Your task to perform on an android device: turn off location history Image 0: 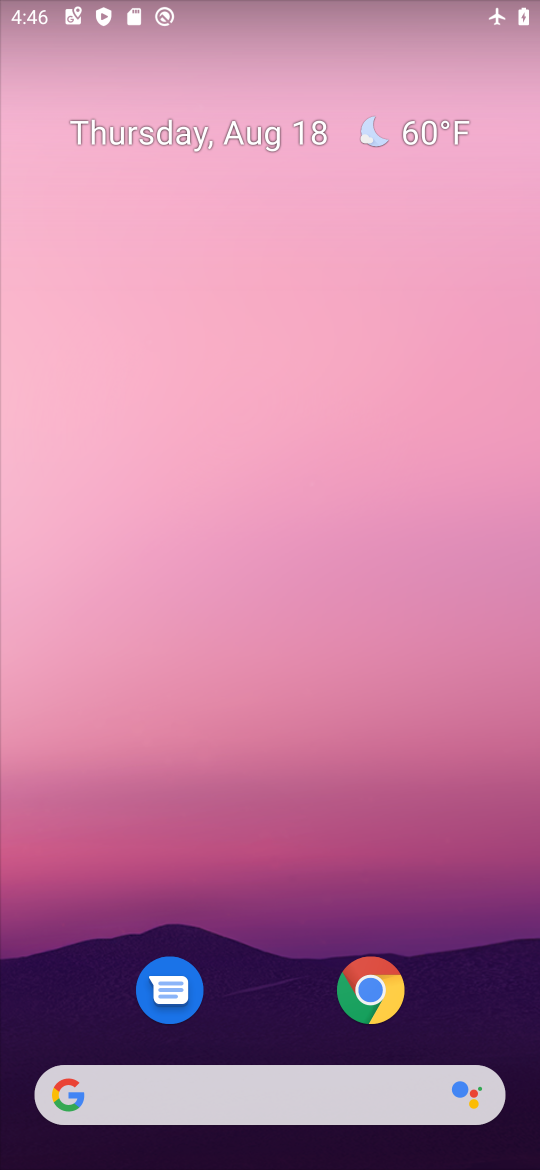
Step 0: drag from (250, 978) to (329, 147)
Your task to perform on an android device: turn off location history Image 1: 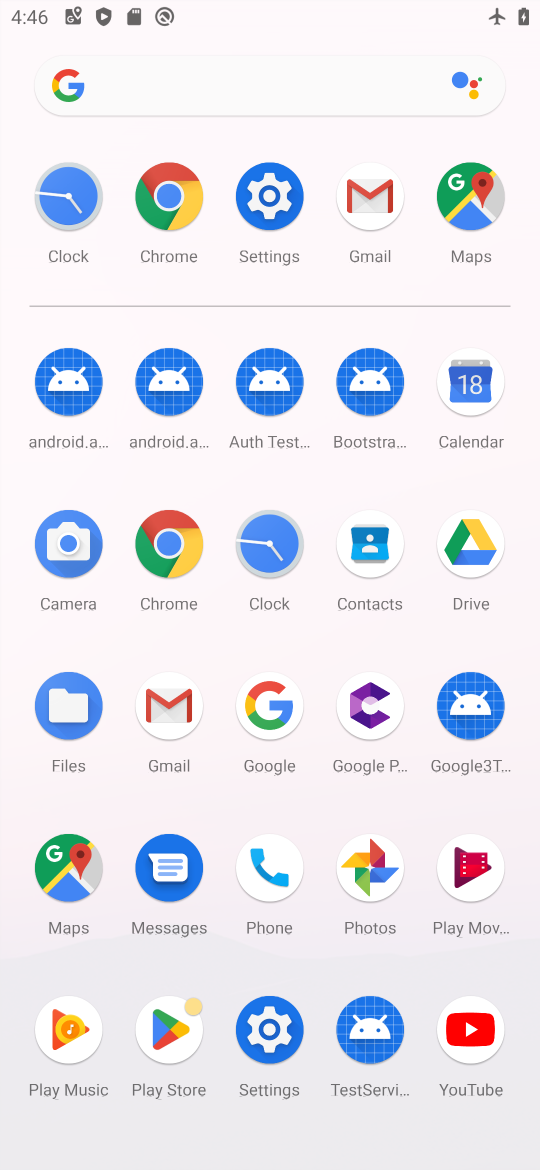
Step 1: click (277, 1019)
Your task to perform on an android device: turn off location history Image 2: 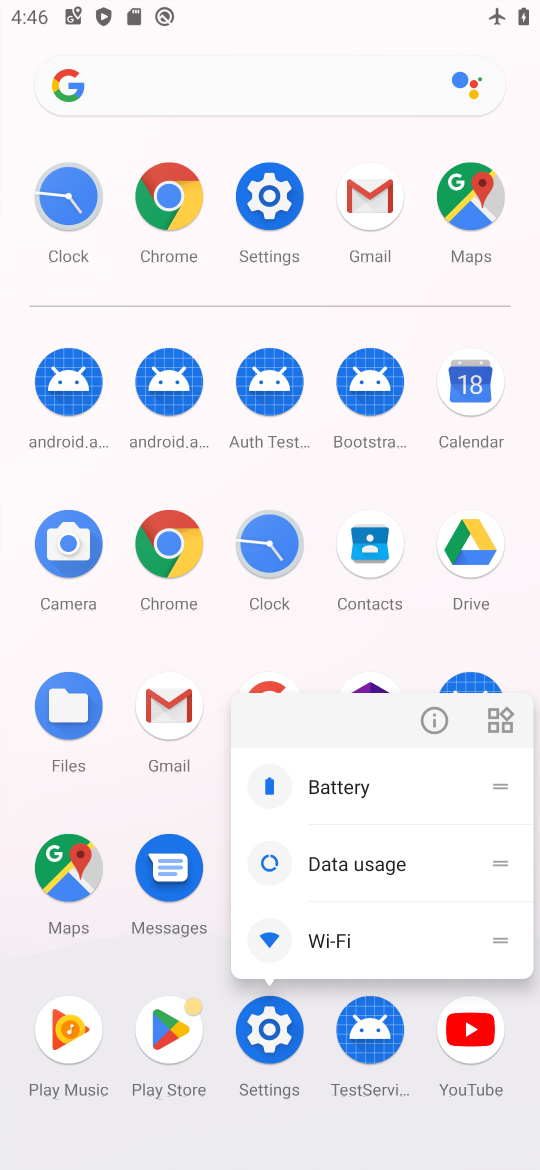
Step 2: click (283, 1035)
Your task to perform on an android device: turn off location history Image 3: 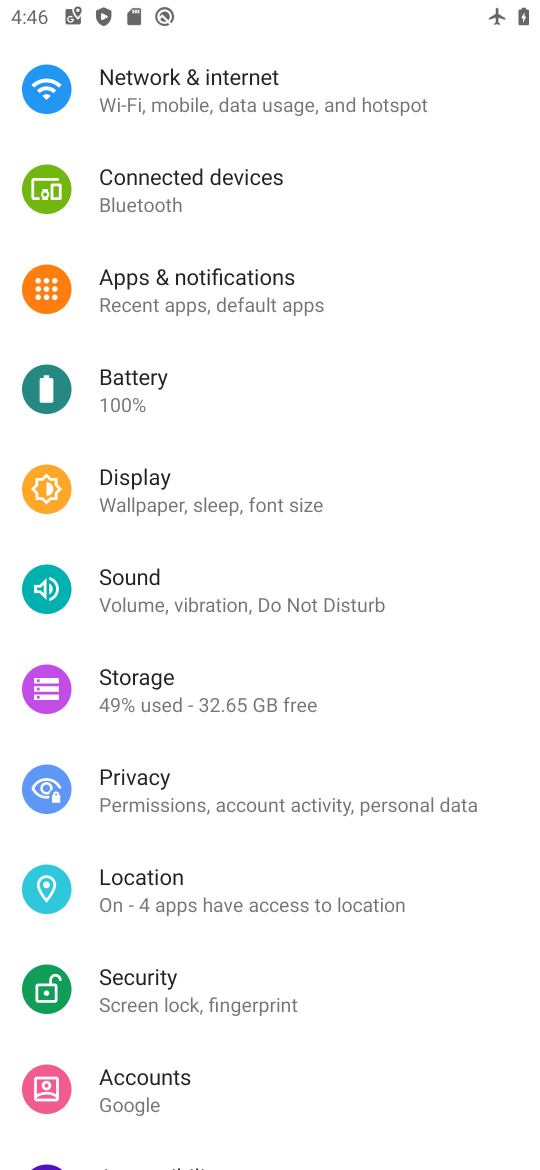
Step 3: click (209, 893)
Your task to perform on an android device: turn off location history Image 4: 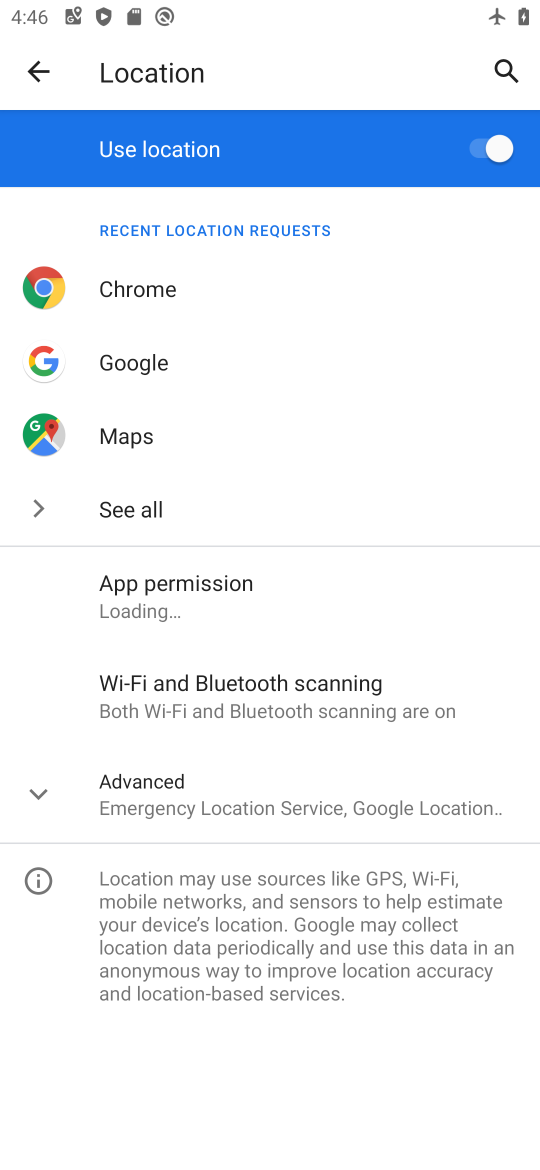
Step 4: click (229, 797)
Your task to perform on an android device: turn off location history Image 5: 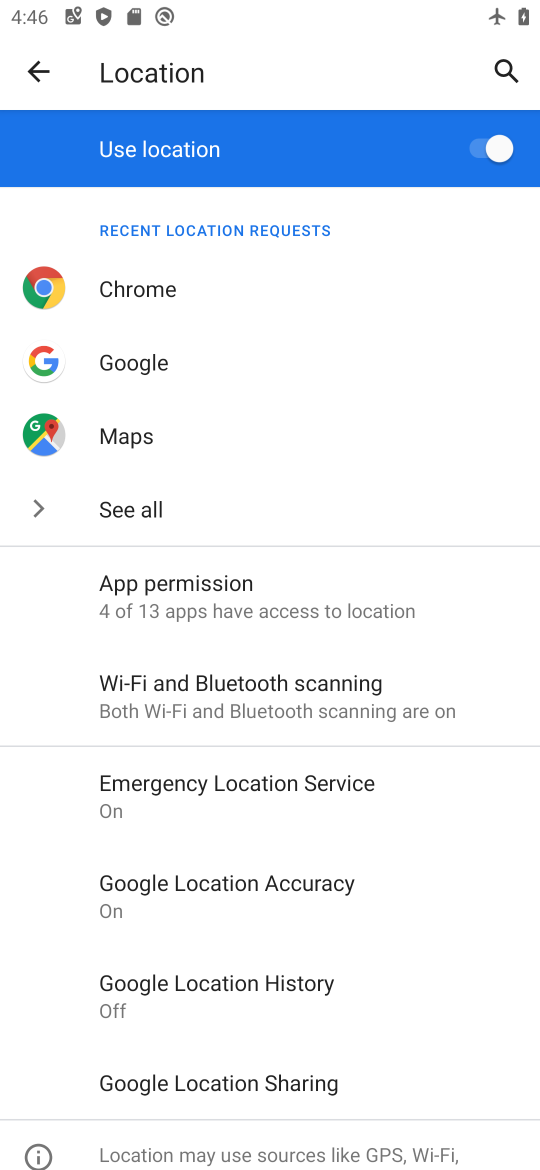
Step 5: click (287, 993)
Your task to perform on an android device: turn off location history Image 6: 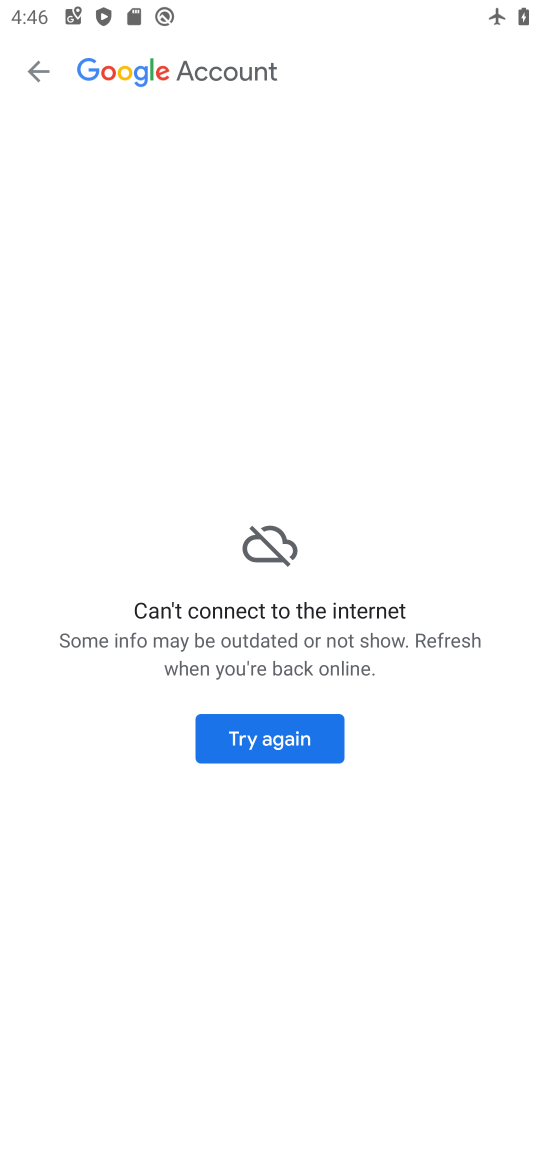
Step 6: task complete